Your task to perform on an android device: Open calendar and show me the second week of next month Image 0: 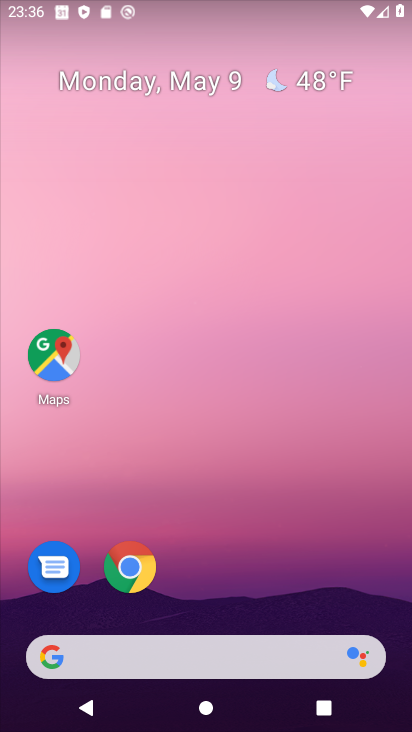
Step 0: drag from (242, 591) to (216, 64)
Your task to perform on an android device: Open calendar and show me the second week of next month Image 1: 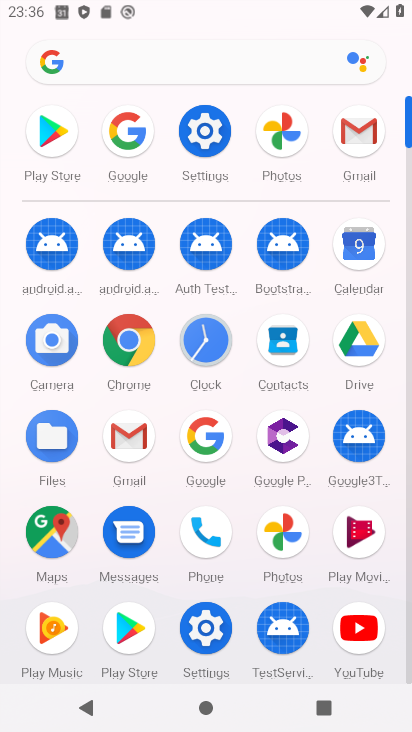
Step 1: click (357, 244)
Your task to perform on an android device: Open calendar and show me the second week of next month Image 2: 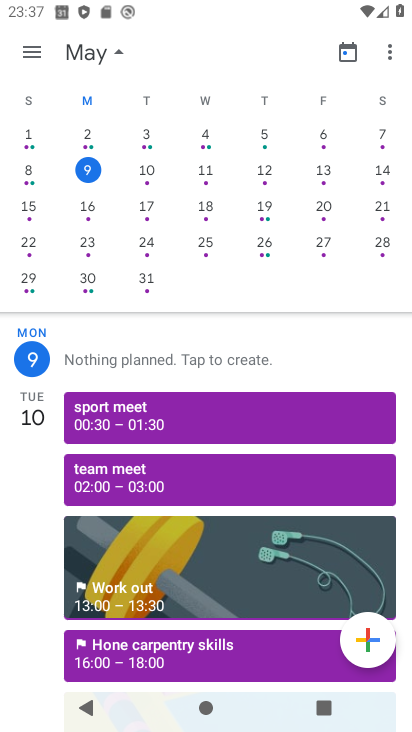
Step 2: click (345, 52)
Your task to perform on an android device: Open calendar and show me the second week of next month Image 3: 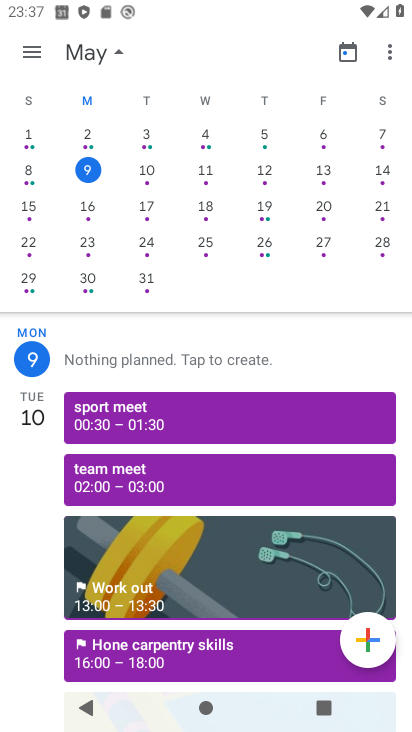
Step 3: drag from (356, 181) to (10, 157)
Your task to perform on an android device: Open calendar and show me the second week of next month Image 4: 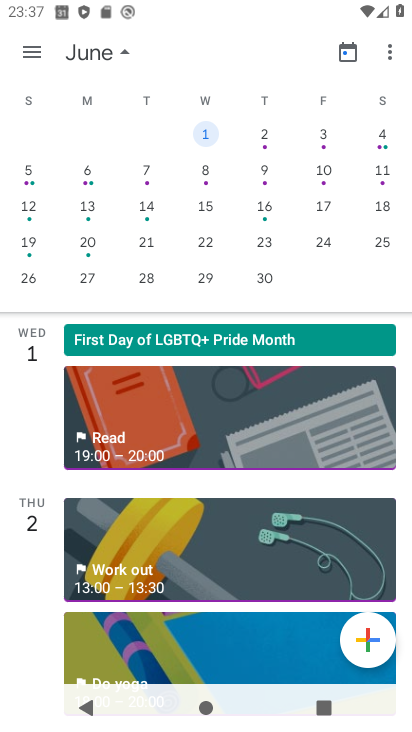
Step 4: click (93, 205)
Your task to perform on an android device: Open calendar and show me the second week of next month Image 5: 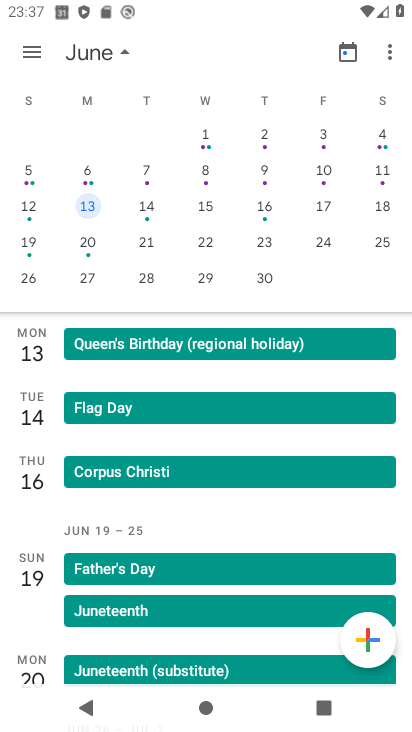
Step 5: click (27, 52)
Your task to perform on an android device: Open calendar and show me the second week of next month Image 6: 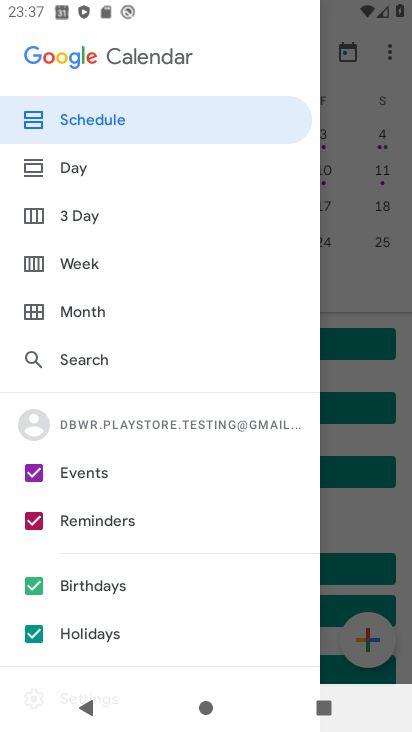
Step 6: click (83, 260)
Your task to perform on an android device: Open calendar and show me the second week of next month Image 7: 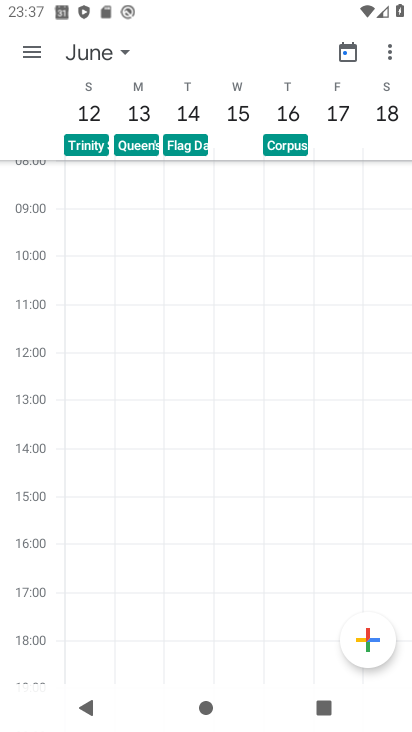
Step 7: task complete